Your task to perform on an android device: Open Youtube and go to "Your channel" Image 0: 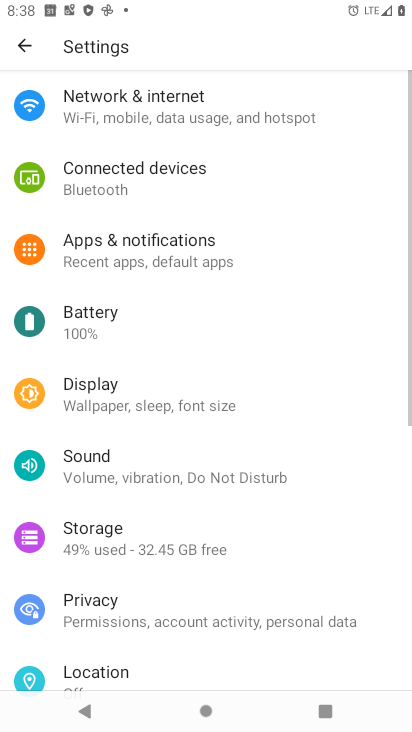
Step 0: press home button
Your task to perform on an android device: Open Youtube and go to "Your channel" Image 1: 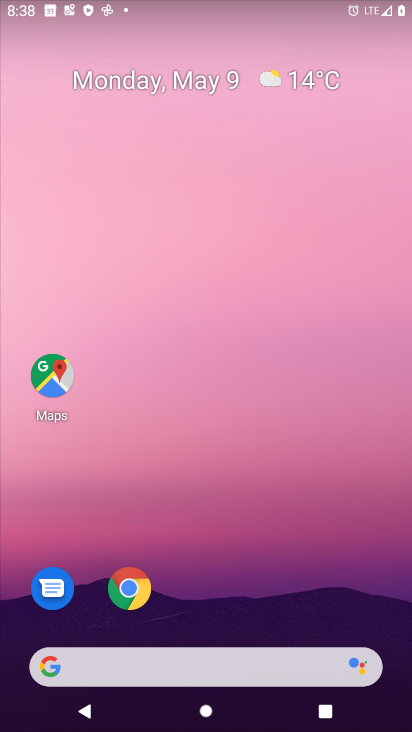
Step 1: drag from (356, 621) to (251, 98)
Your task to perform on an android device: Open Youtube and go to "Your channel" Image 2: 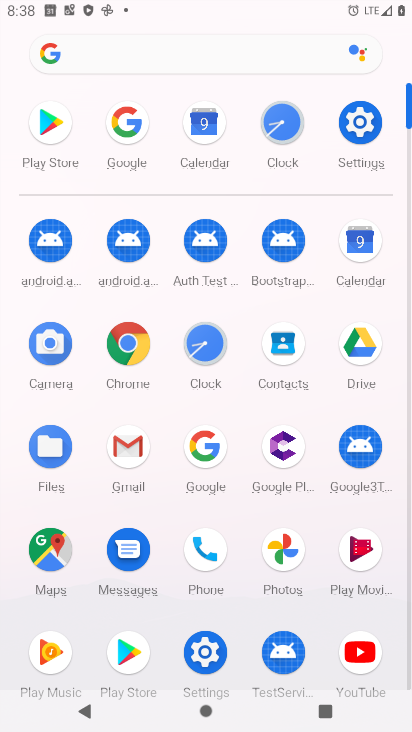
Step 2: click (367, 655)
Your task to perform on an android device: Open Youtube and go to "Your channel" Image 3: 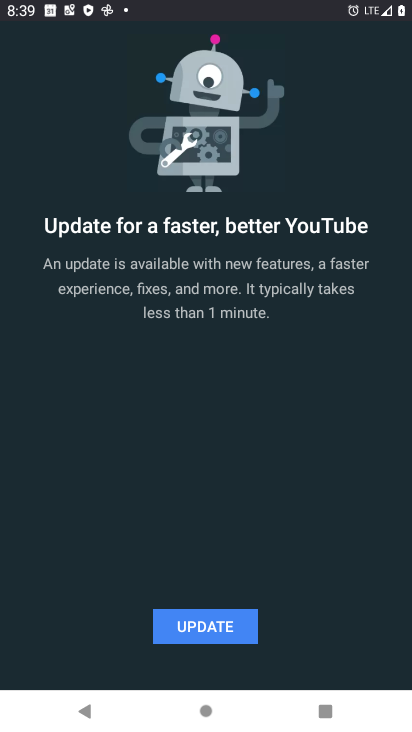
Step 3: click (210, 629)
Your task to perform on an android device: Open Youtube and go to "Your channel" Image 4: 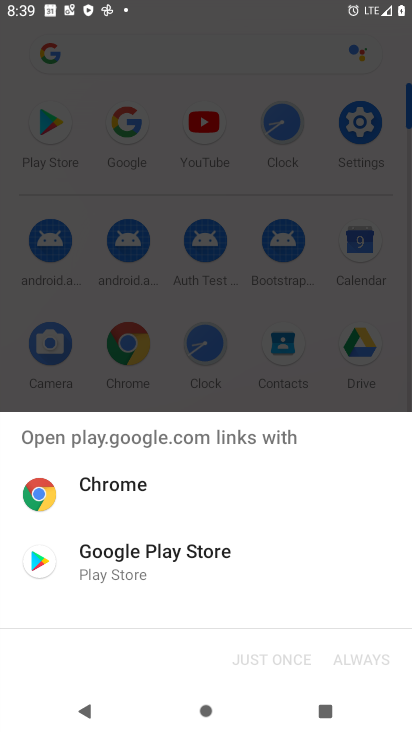
Step 4: click (123, 545)
Your task to perform on an android device: Open Youtube and go to "Your channel" Image 5: 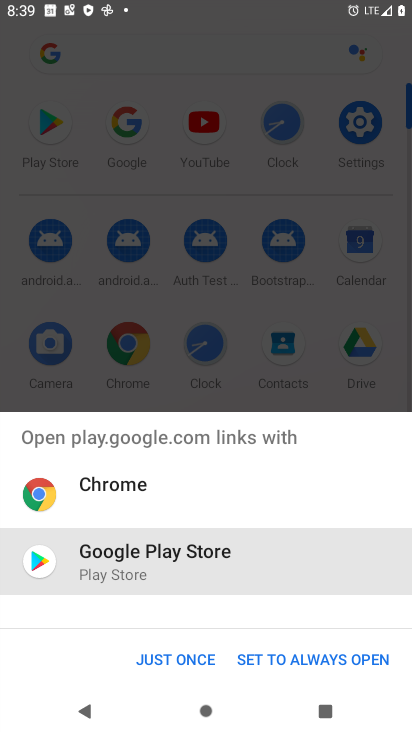
Step 5: click (161, 661)
Your task to perform on an android device: Open Youtube and go to "Your channel" Image 6: 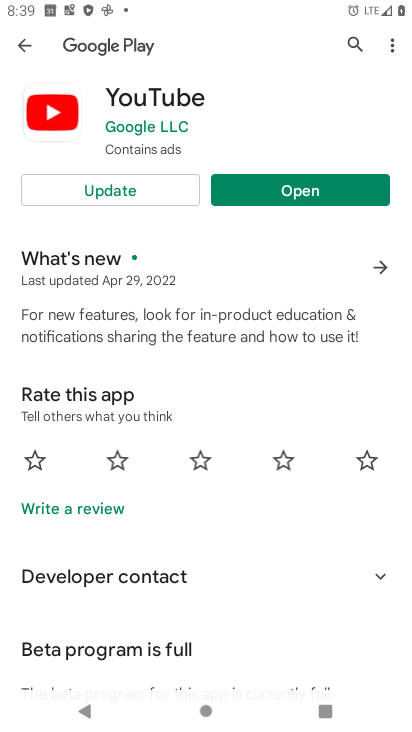
Step 6: click (109, 195)
Your task to perform on an android device: Open Youtube and go to "Your channel" Image 7: 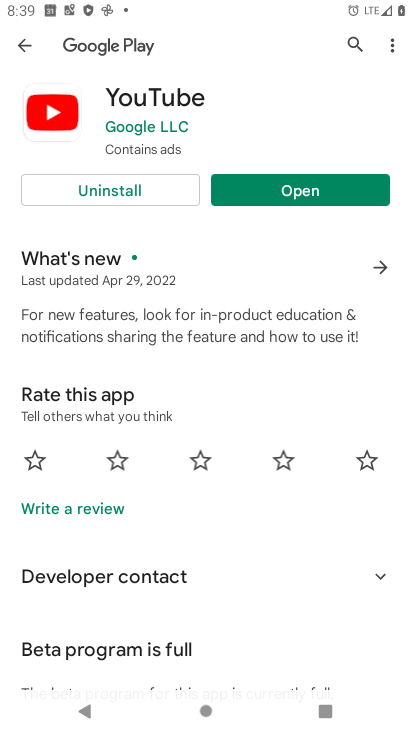
Step 7: click (276, 193)
Your task to perform on an android device: Open Youtube and go to "Your channel" Image 8: 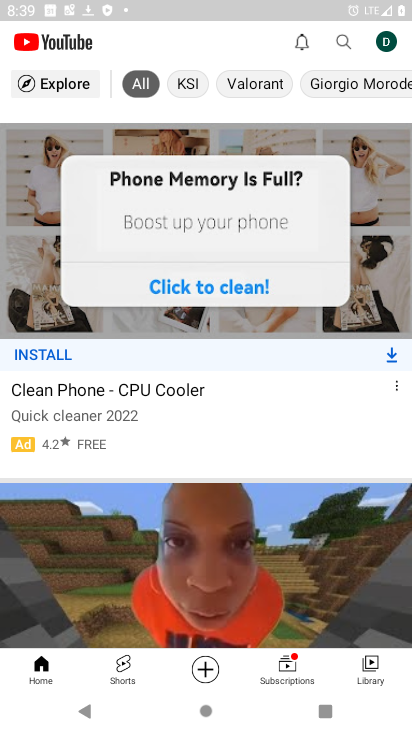
Step 8: click (383, 49)
Your task to perform on an android device: Open Youtube and go to "Your channel" Image 9: 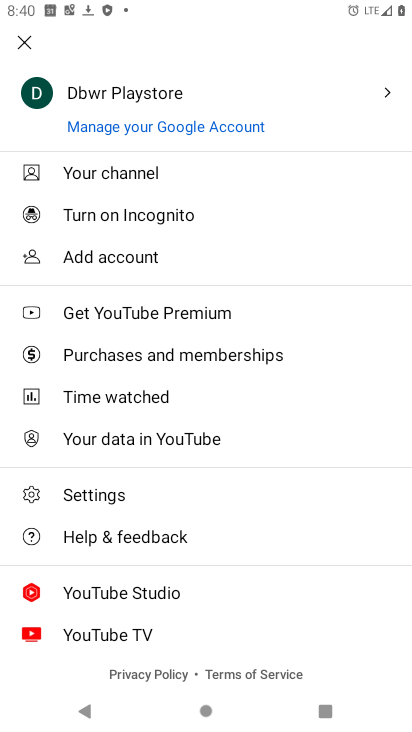
Step 9: click (152, 178)
Your task to perform on an android device: Open Youtube and go to "Your channel" Image 10: 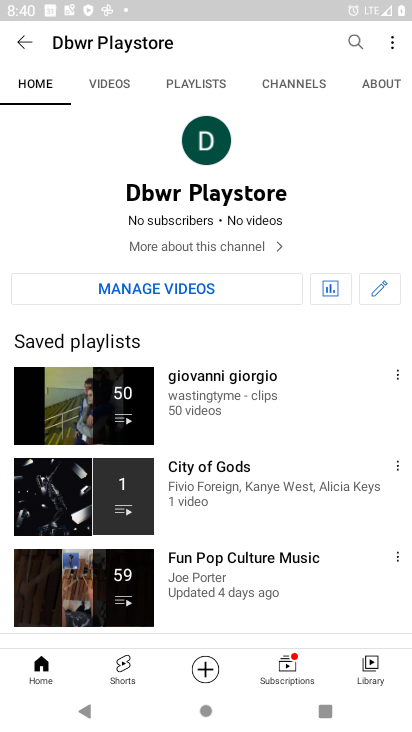
Step 10: click (198, 177)
Your task to perform on an android device: Open Youtube and go to "Your channel" Image 11: 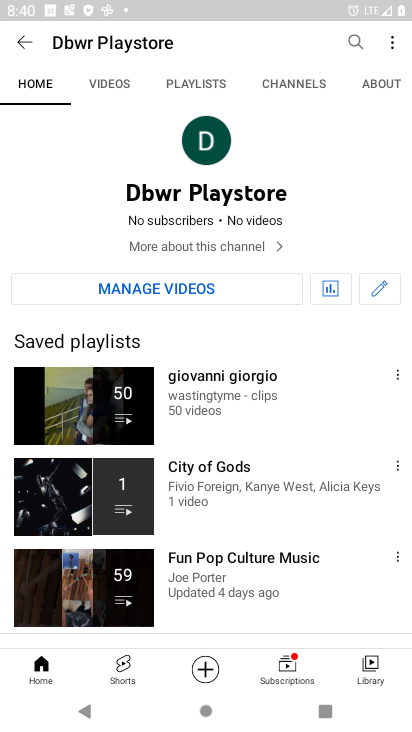
Step 11: click (215, 160)
Your task to perform on an android device: Open Youtube and go to "Your channel" Image 12: 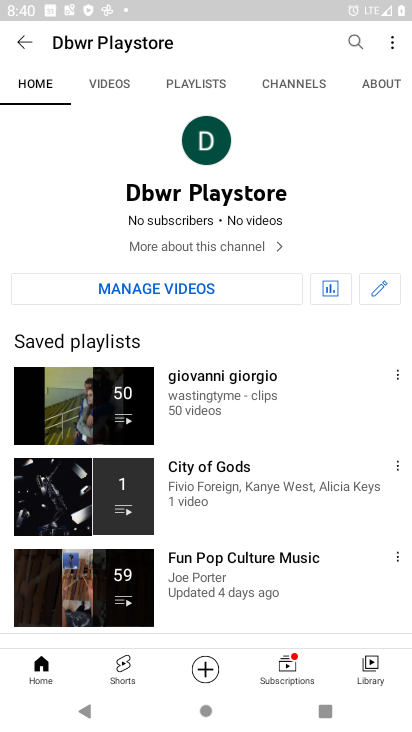
Step 12: task complete